Your task to perform on an android device: open a new tab in the chrome app Image 0: 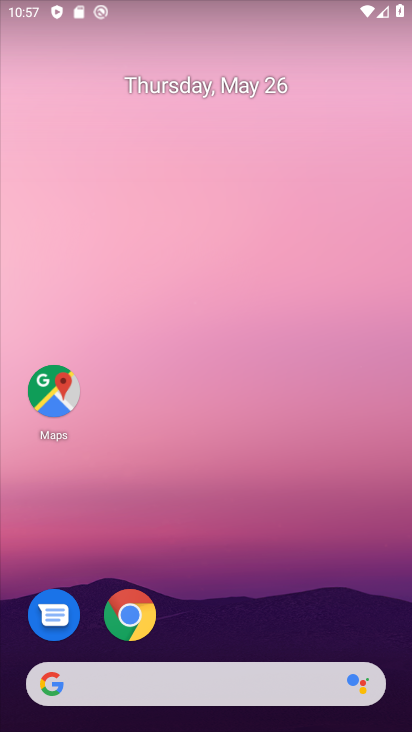
Step 0: click (120, 618)
Your task to perform on an android device: open a new tab in the chrome app Image 1: 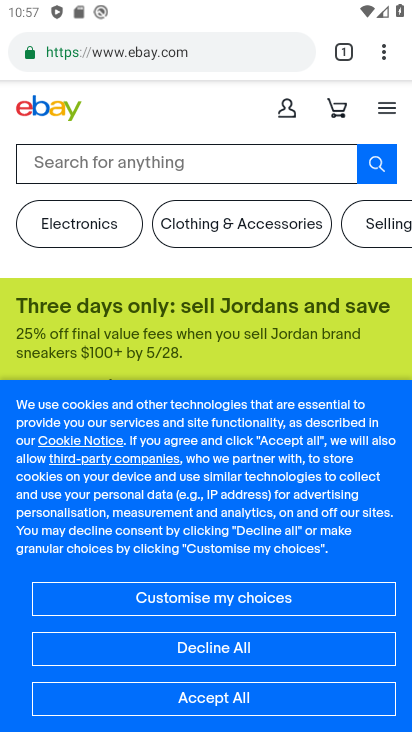
Step 1: task complete